Your task to perform on an android device: Open Amazon Image 0: 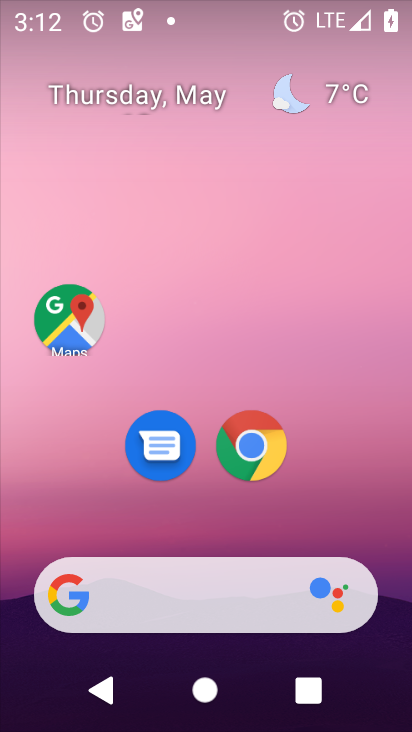
Step 0: click (249, 445)
Your task to perform on an android device: Open Amazon Image 1: 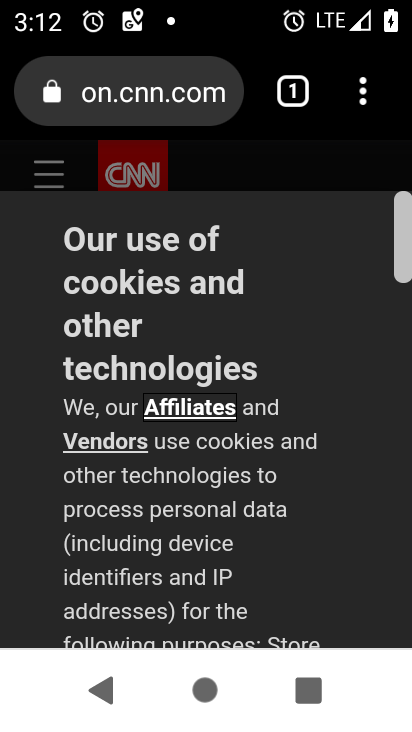
Step 1: click (120, 103)
Your task to perform on an android device: Open Amazon Image 2: 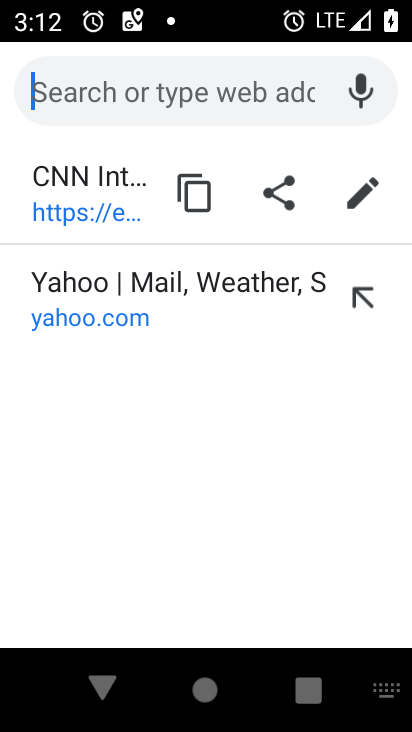
Step 2: type "amazon"
Your task to perform on an android device: Open Amazon Image 3: 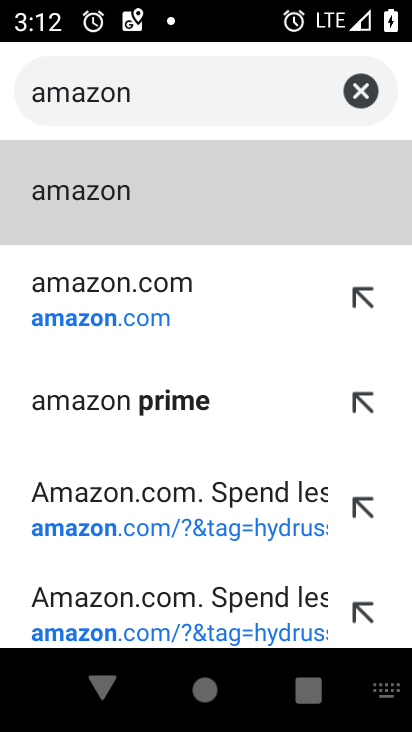
Step 3: click (112, 195)
Your task to perform on an android device: Open Amazon Image 4: 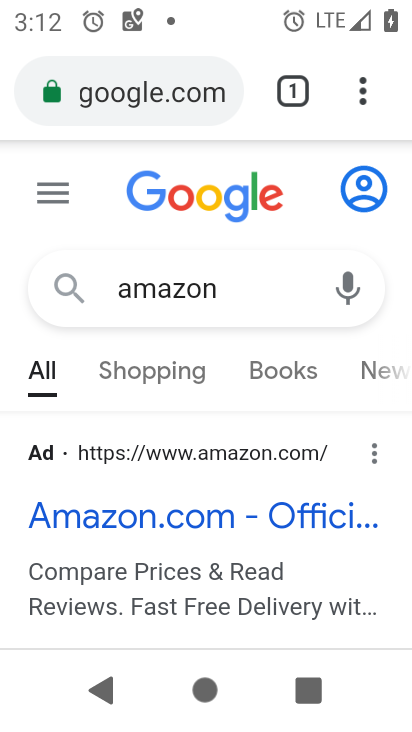
Step 4: click (101, 518)
Your task to perform on an android device: Open Amazon Image 5: 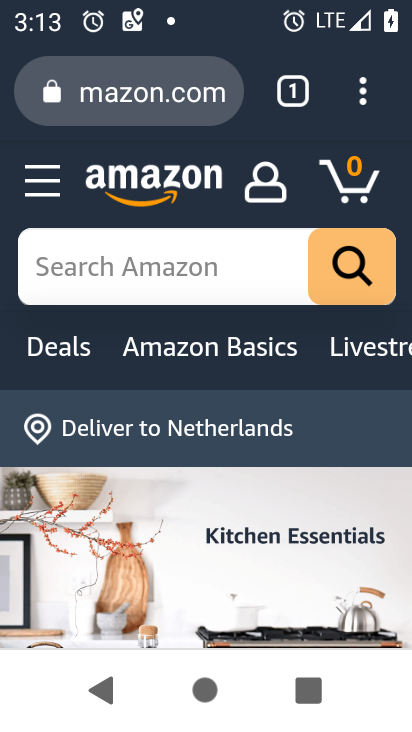
Step 5: task complete